Your task to perform on an android device: Open Chrome and go to settings Image 0: 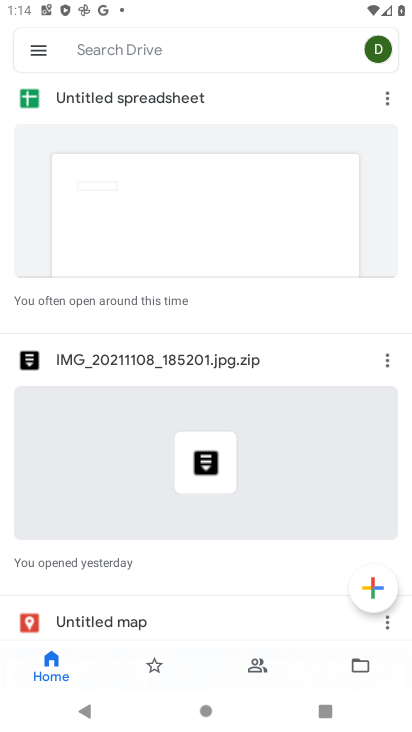
Step 0: press home button
Your task to perform on an android device: Open Chrome and go to settings Image 1: 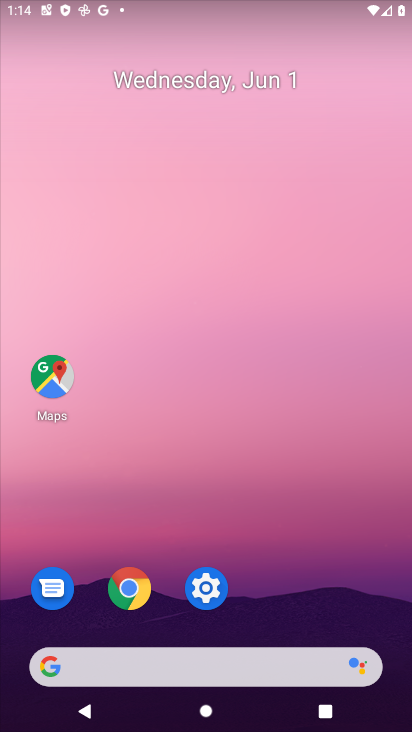
Step 1: drag from (261, 683) to (194, 72)
Your task to perform on an android device: Open Chrome and go to settings Image 2: 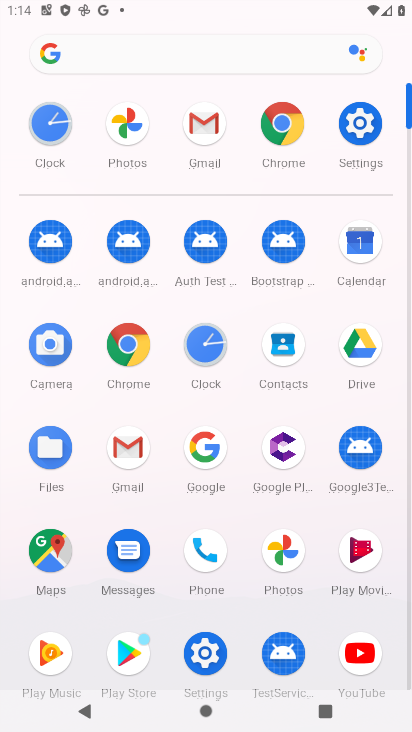
Step 2: click (125, 338)
Your task to perform on an android device: Open Chrome and go to settings Image 3: 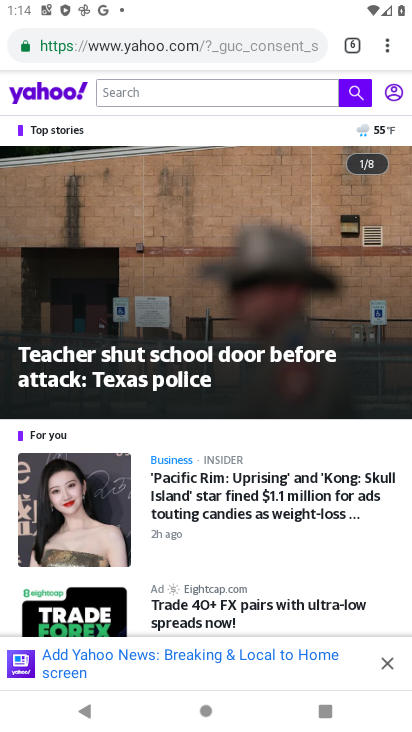
Step 3: click (374, 47)
Your task to perform on an android device: Open Chrome and go to settings Image 4: 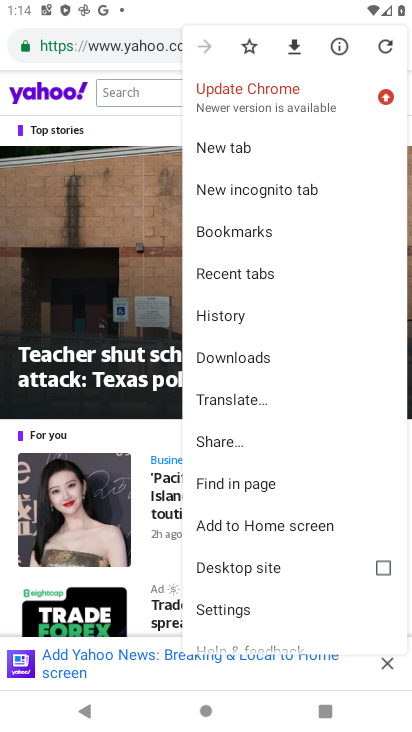
Step 4: click (226, 605)
Your task to perform on an android device: Open Chrome and go to settings Image 5: 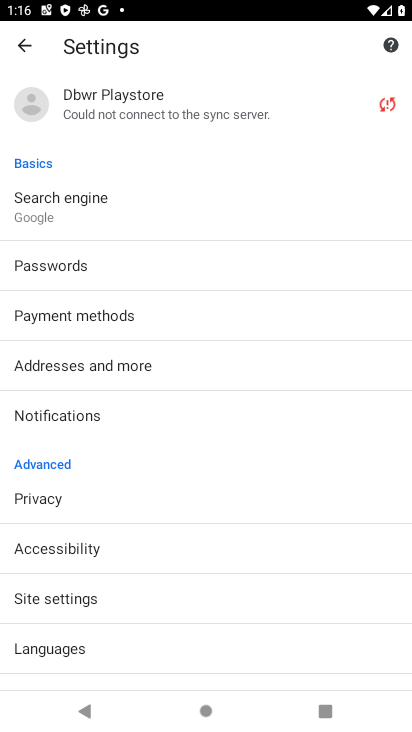
Step 5: task complete